Your task to perform on an android device: check data usage Image 0: 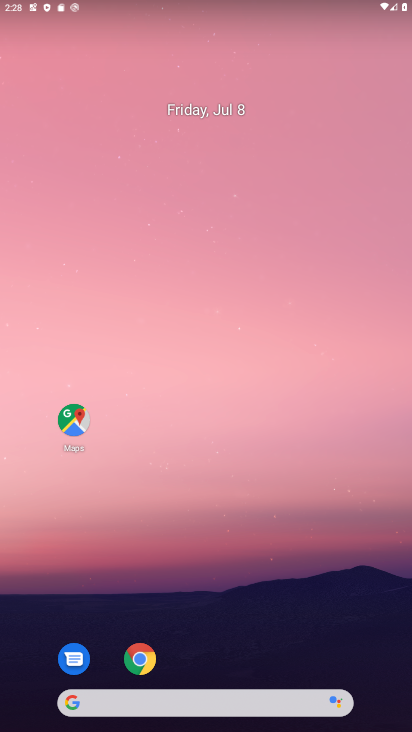
Step 0: drag from (300, 702) to (216, 141)
Your task to perform on an android device: check data usage Image 1: 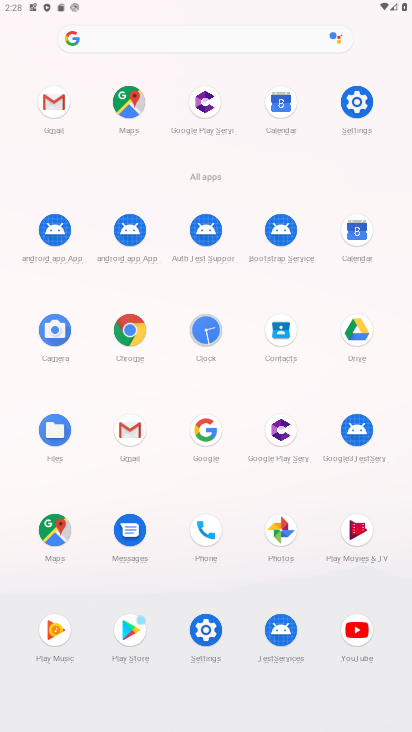
Step 1: click (205, 638)
Your task to perform on an android device: check data usage Image 2: 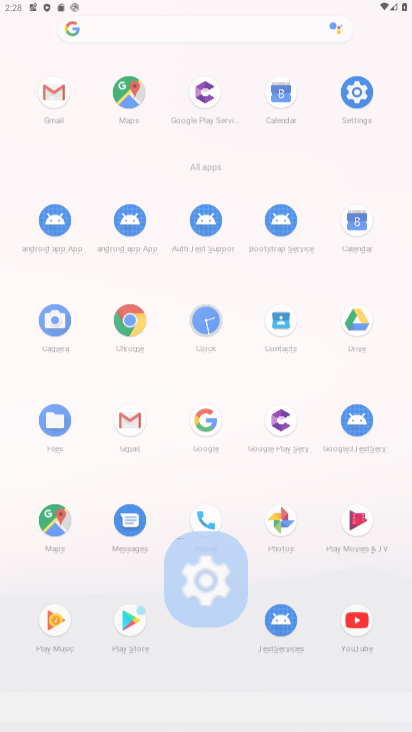
Step 2: click (205, 638)
Your task to perform on an android device: check data usage Image 3: 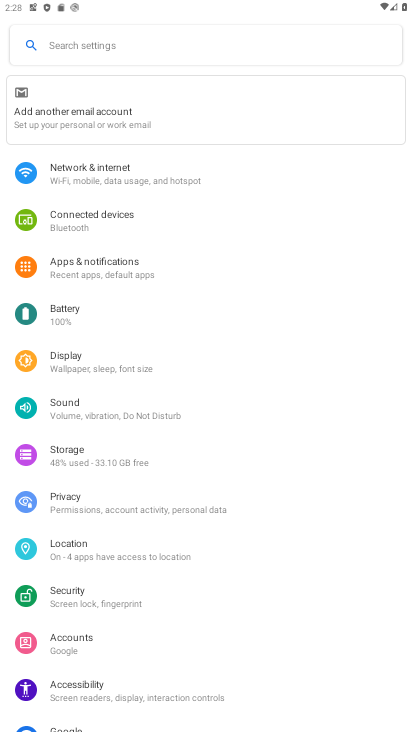
Step 3: click (205, 638)
Your task to perform on an android device: check data usage Image 4: 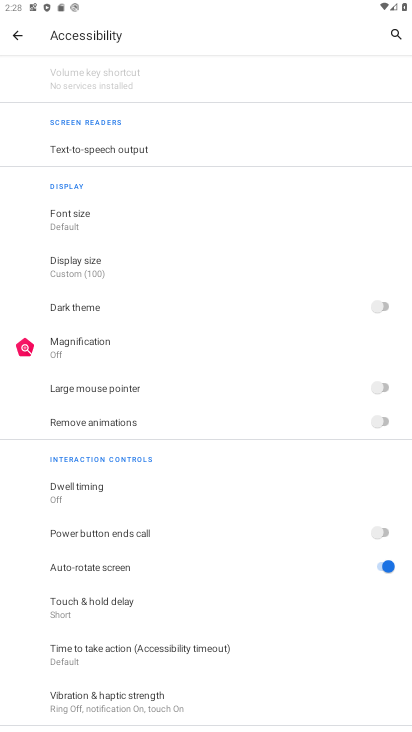
Step 4: click (16, 32)
Your task to perform on an android device: check data usage Image 5: 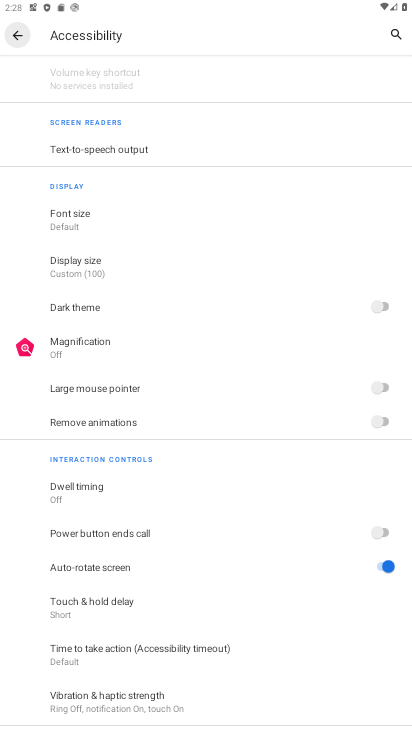
Step 5: click (17, 33)
Your task to perform on an android device: check data usage Image 6: 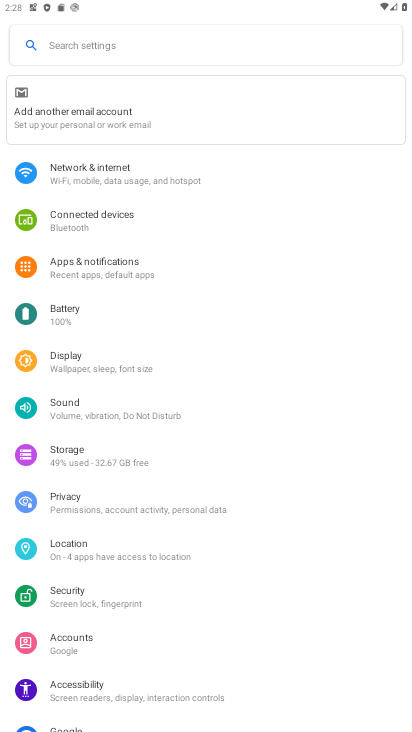
Step 6: click (58, 349)
Your task to perform on an android device: check data usage Image 7: 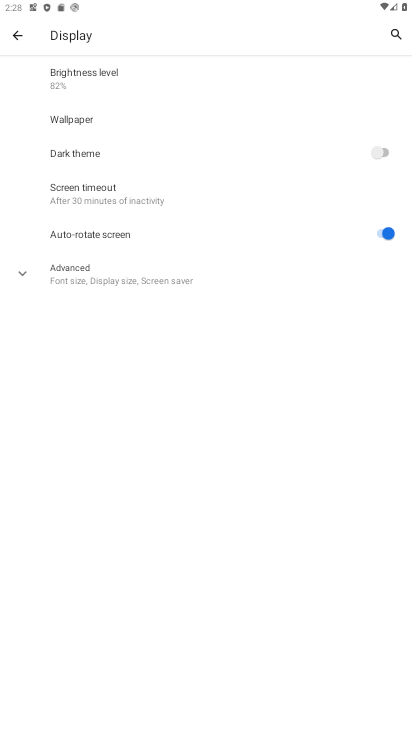
Step 7: click (59, 351)
Your task to perform on an android device: check data usage Image 8: 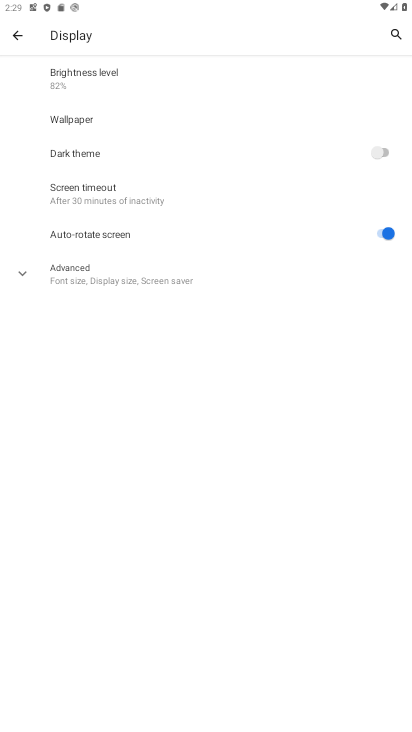
Step 8: click (13, 38)
Your task to perform on an android device: check data usage Image 9: 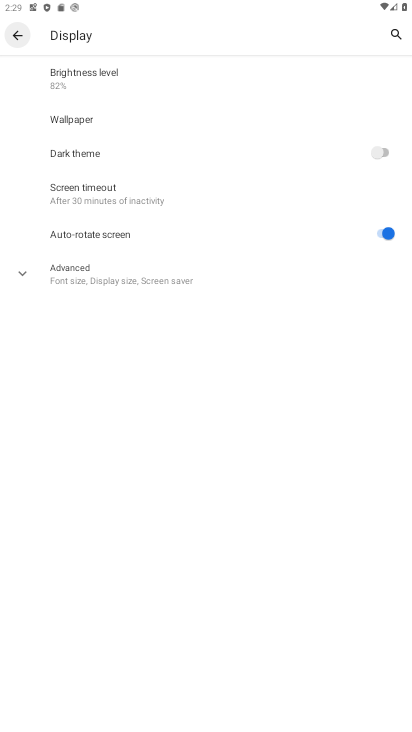
Step 9: click (13, 38)
Your task to perform on an android device: check data usage Image 10: 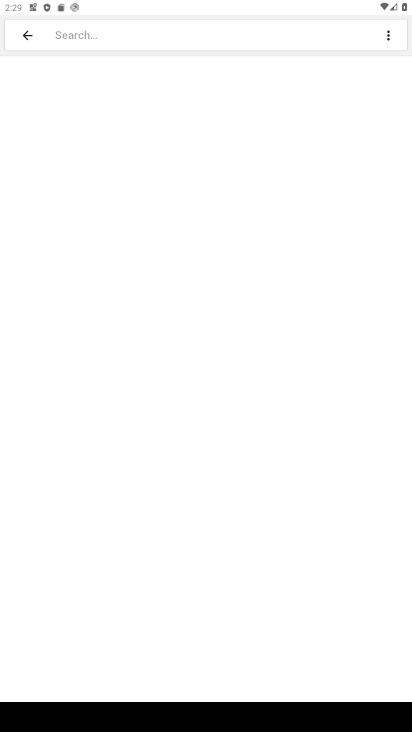
Step 10: click (31, 36)
Your task to perform on an android device: check data usage Image 11: 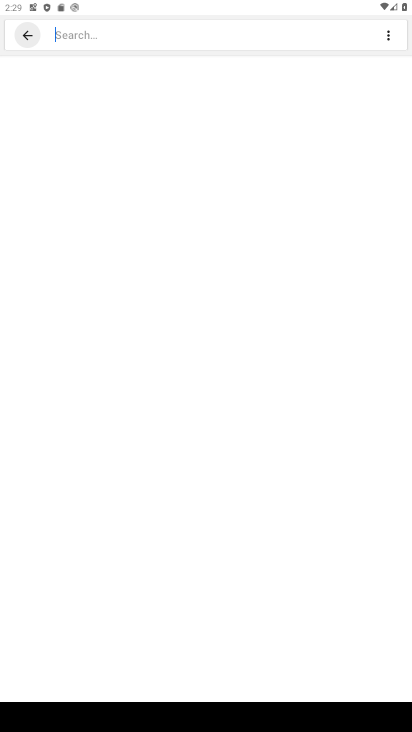
Step 11: click (34, 39)
Your task to perform on an android device: check data usage Image 12: 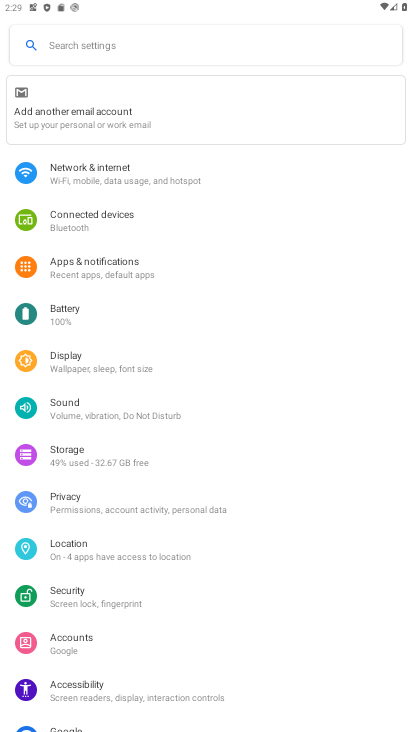
Step 12: drag from (100, 599) to (112, 183)
Your task to perform on an android device: check data usage Image 13: 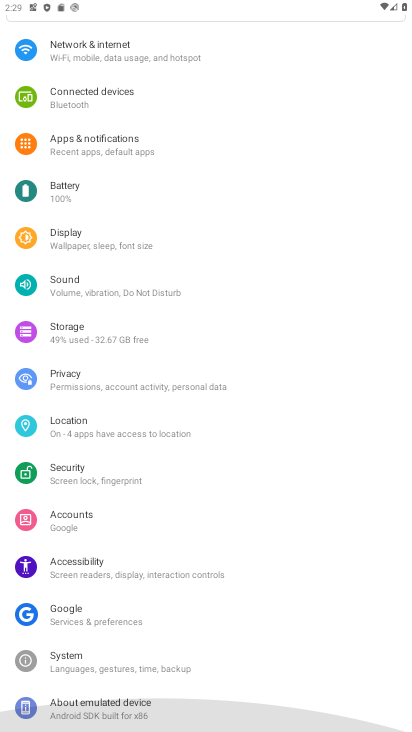
Step 13: drag from (157, 506) to (128, 109)
Your task to perform on an android device: check data usage Image 14: 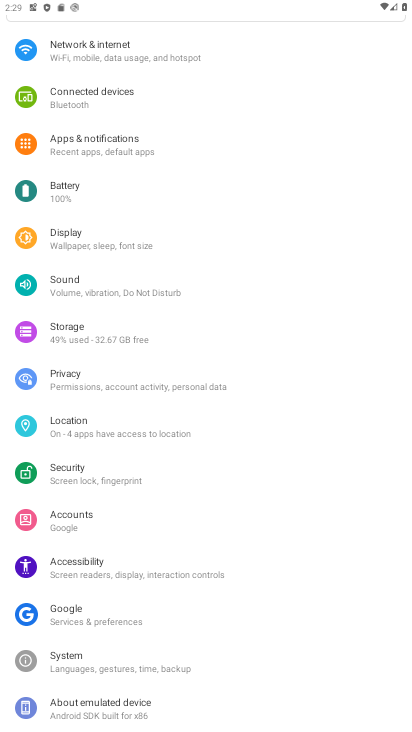
Step 14: click (102, 50)
Your task to perform on an android device: check data usage Image 15: 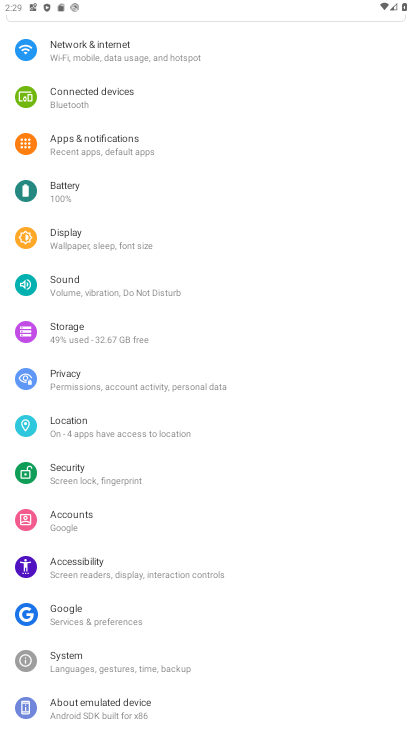
Step 15: click (103, 50)
Your task to perform on an android device: check data usage Image 16: 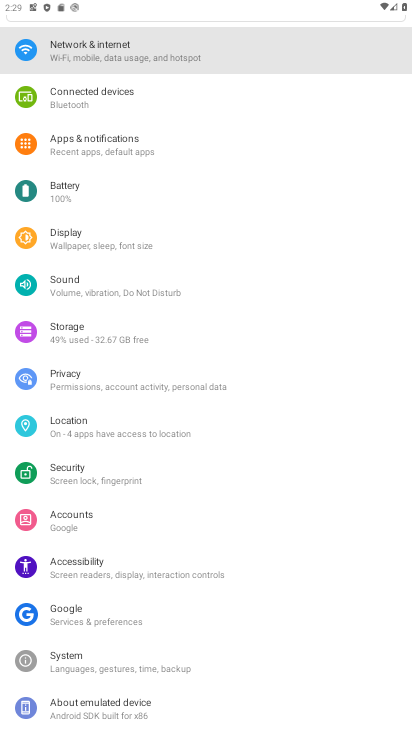
Step 16: click (103, 50)
Your task to perform on an android device: check data usage Image 17: 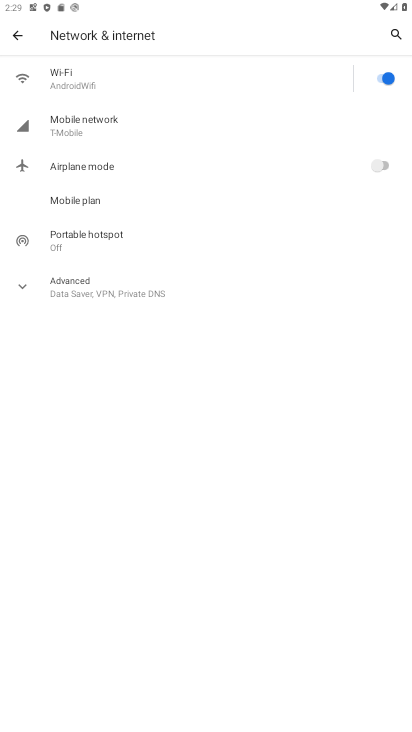
Step 17: click (110, 51)
Your task to perform on an android device: check data usage Image 18: 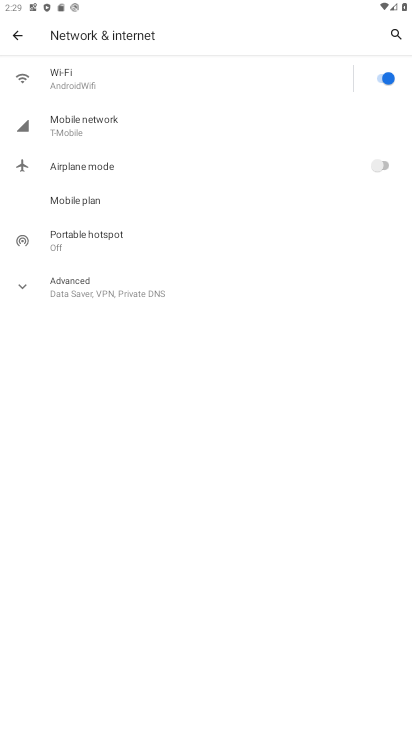
Step 18: click (110, 51)
Your task to perform on an android device: check data usage Image 19: 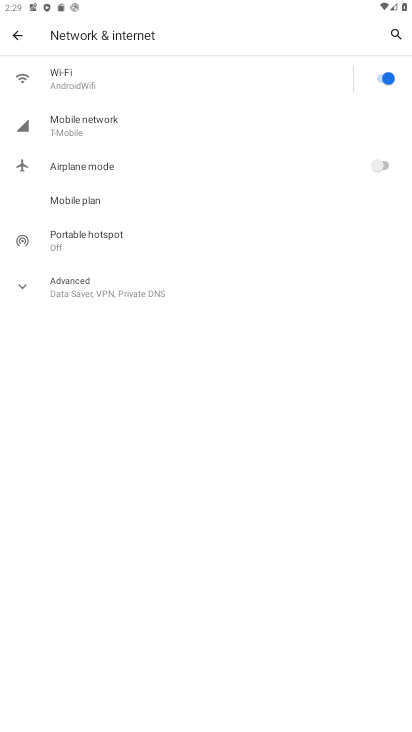
Step 19: click (12, 33)
Your task to perform on an android device: check data usage Image 20: 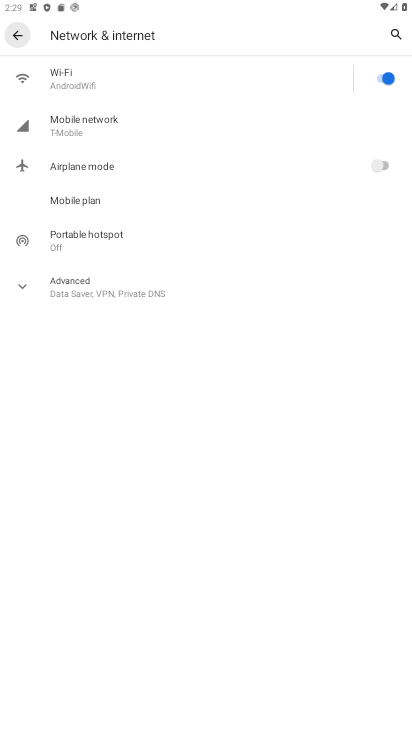
Step 20: click (12, 33)
Your task to perform on an android device: check data usage Image 21: 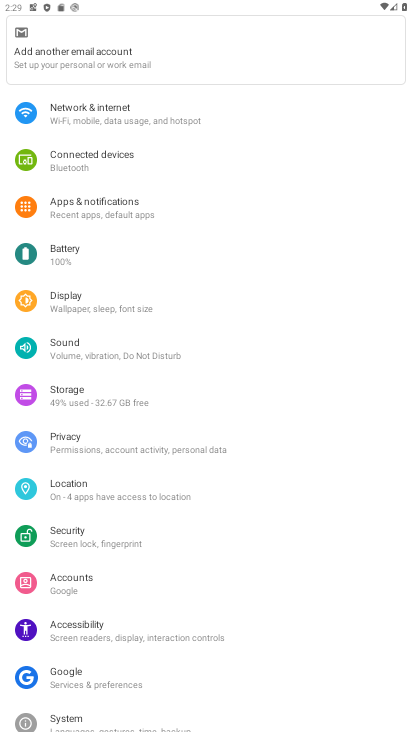
Step 21: click (70, 120)
Your task to perform on an android device: check data usage Image 22: 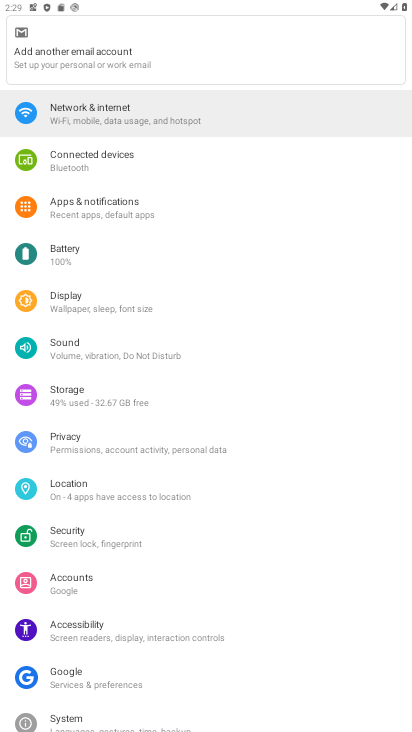
Step 22: click (74, 119)
Your task to perform on an android device: check data usage Image 23: 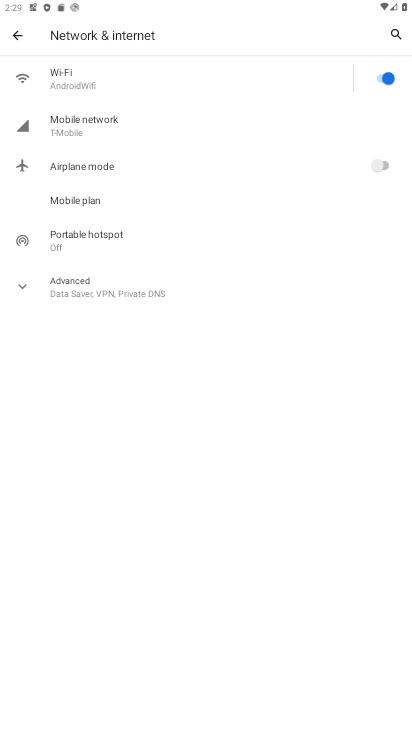
Step 23: task complete